Your task to perform on an android device: Open wifi settings Image 0: 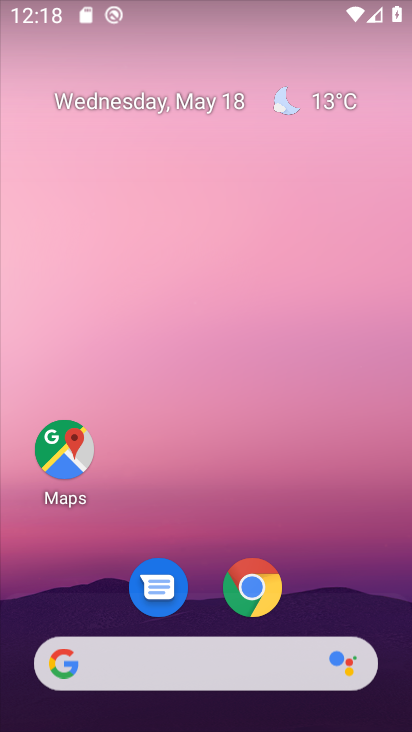
Step 0: drag from (84, 12) to (129, 598)
Your task to perform on an android device: Open wifi settings Image 1: 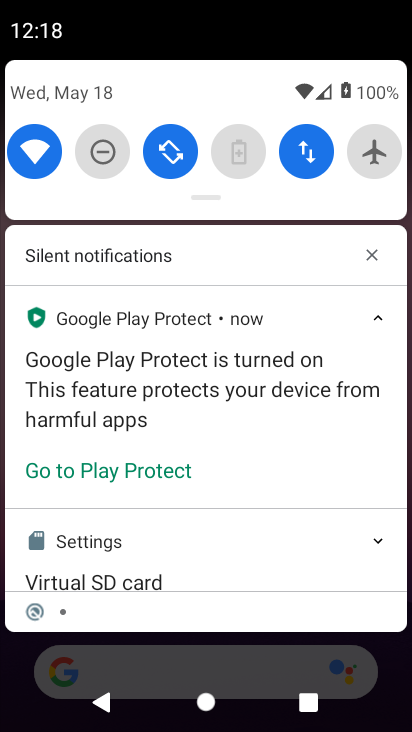
Step 1: click (32, 157)
Your task to perform on an android device: Open wifi settings Image 2: 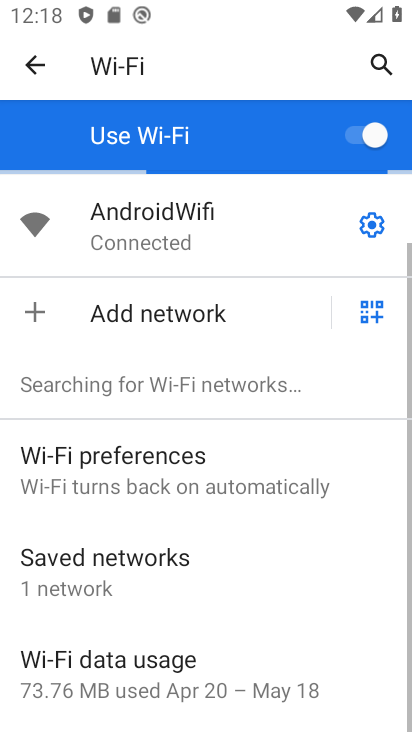
Step 2: task complete